Your task to perform on an android device: toggle translation in the chrome app Image 0: 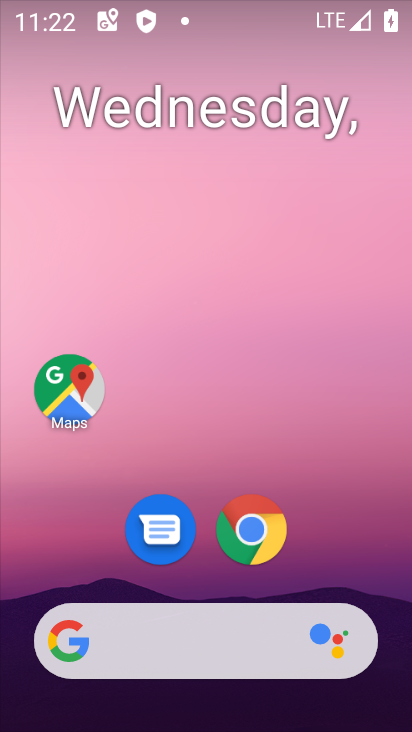
Step 0: drag from (210, 597) to (172, 10)
Your task to perform on an android device: toggle translation in the chrome app Image 1: 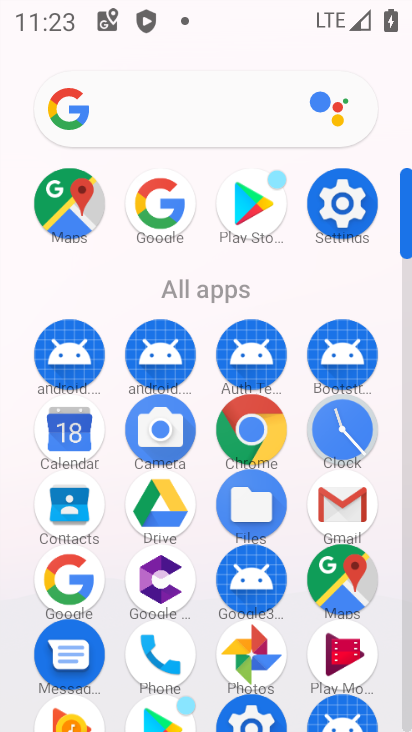
Step 1: click (247, 444)
Your task to perform on an android device: toggle translation in the chrome app Image 2: 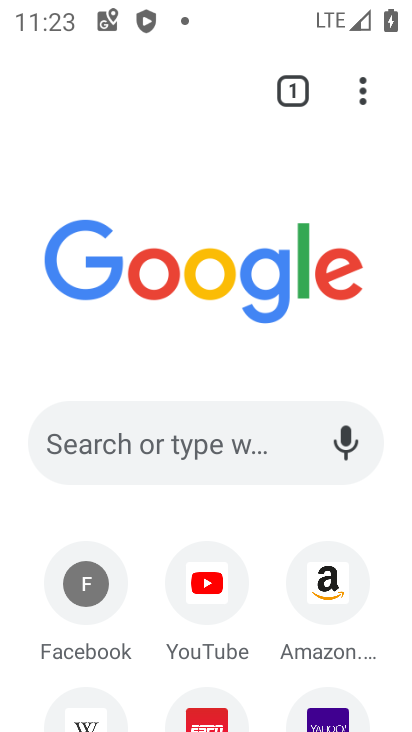
Step 2: click (361, 91)
Your task to perform on an android device: toggle translation in the chrome app Image 3: 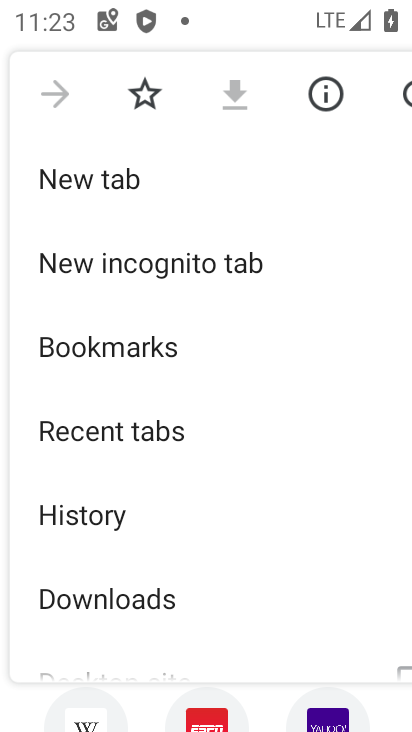
Step 3: drag from (142, 583) to (86, 103)
Your task to perform on an android device: toggle translation in the chrome app Image 4: 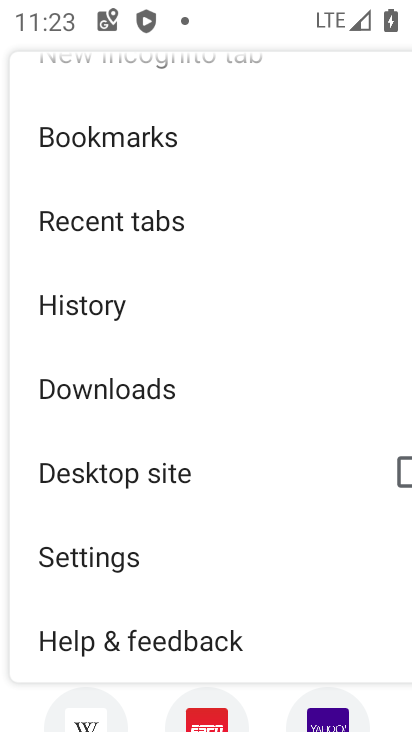
Step 4: click (92, 552)
Your task to perform on an android device: toggle translation in the chrome app Image 5: 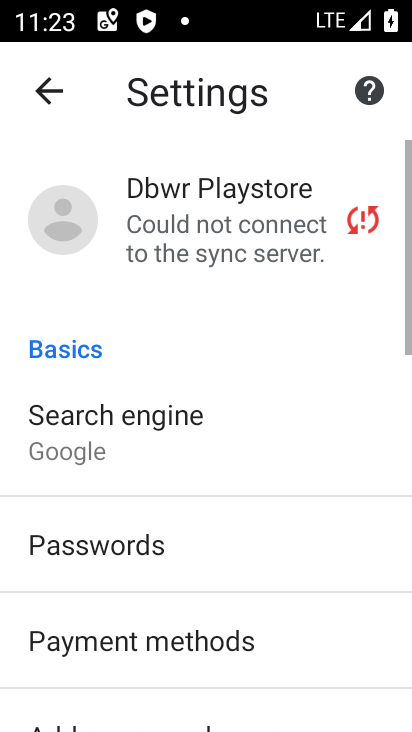
Step 5: drag from (134, 615) to (95, 37)
Your task to perform on an android device: toggle translation in the chrome app Image 6: 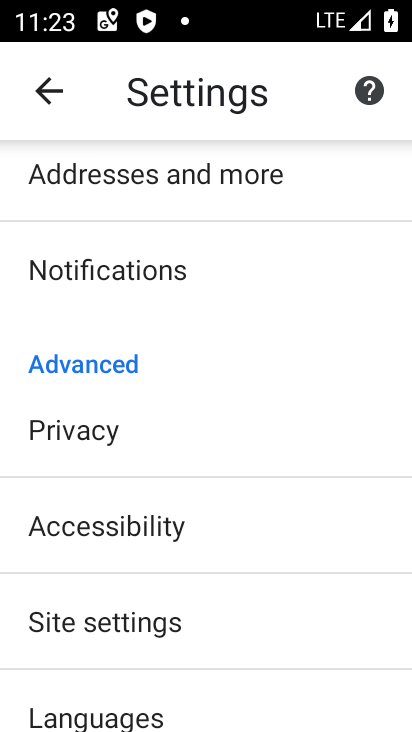
Step 6: drag from (188, 651) to (165, 233)
Your task to perform on an android device: toggle translation in the chrome app Image 7: 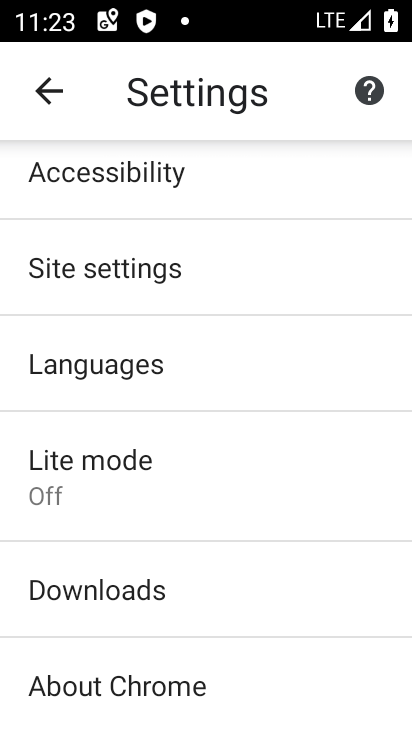
Step 7: drag from (218, 580) to (214, 381)
Your task to perform on an android device: toggle translation in the chrome app Image 8: 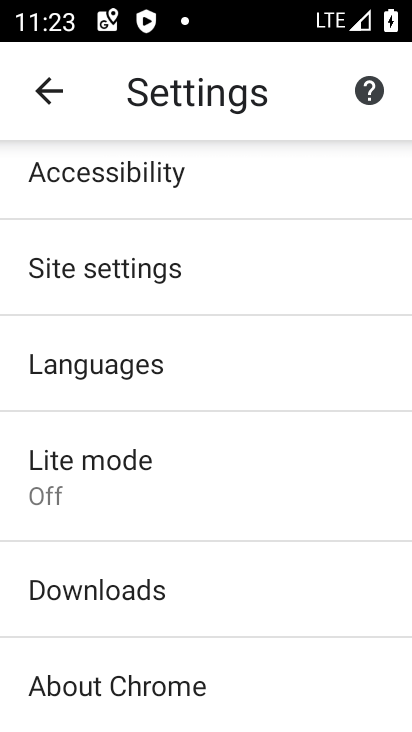
Step 8: drag from (227, 644) to (168, 164)
Your task to perform on an android device: toggle translation in the chrome app Image 9: 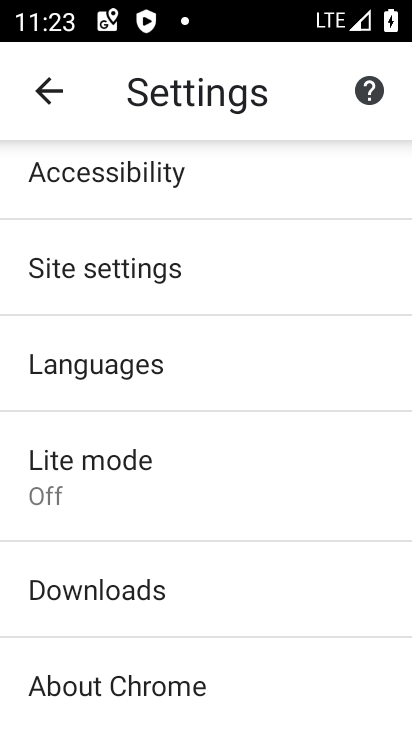
Step 9: click (151, 386)
Your task to perform on an android device: toggle translation in the chrome app Image 10: 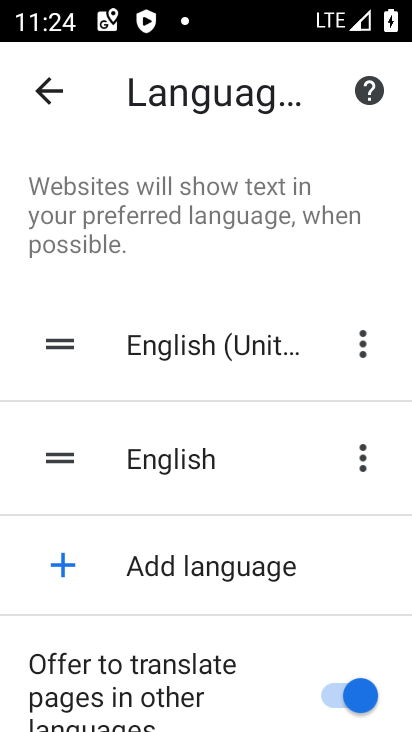
Step 10: click (355, 689)
Your task to perform on an android device: toggle translation in the chrome app Image 11: 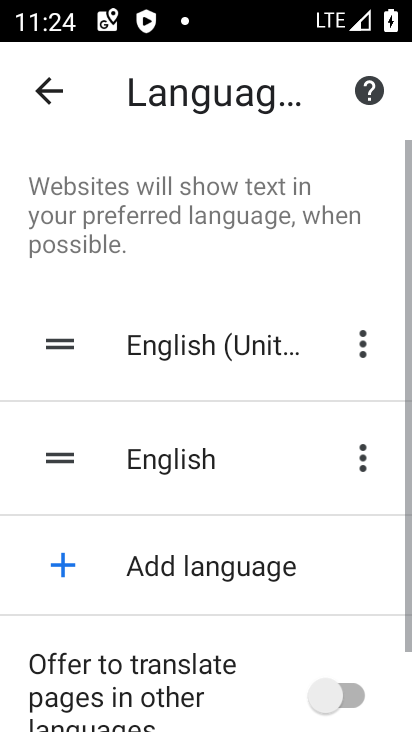
Step 11: task complete